Your task to perform on an android device: Check the weather Image 0: 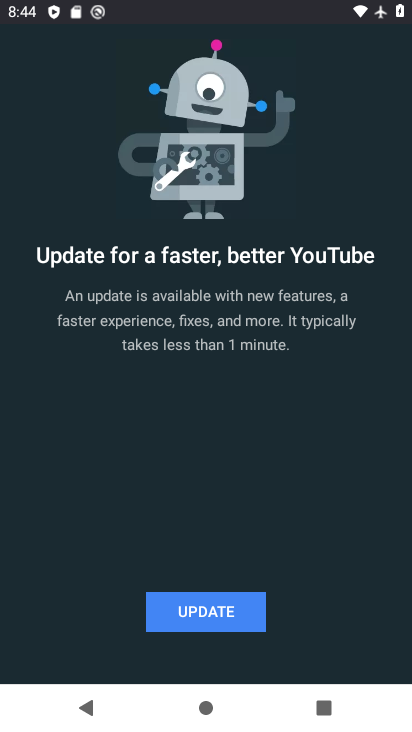
Step 0: press home button
Your task to perform on an android device: Check the weather Image 1: 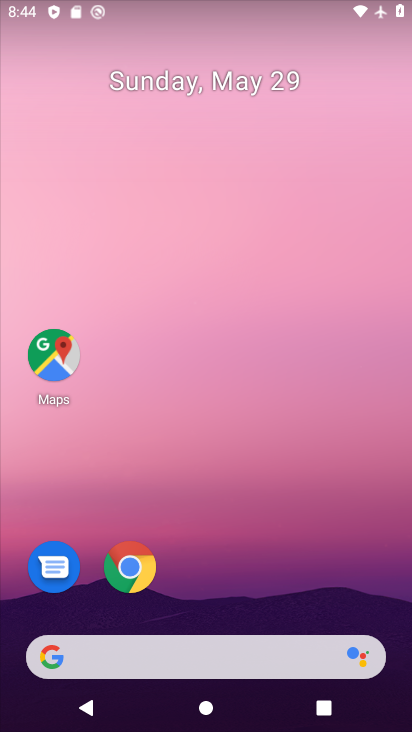
Step 1: click (239, 666)
Your task to perform on an android device: Check the weather Image 2: 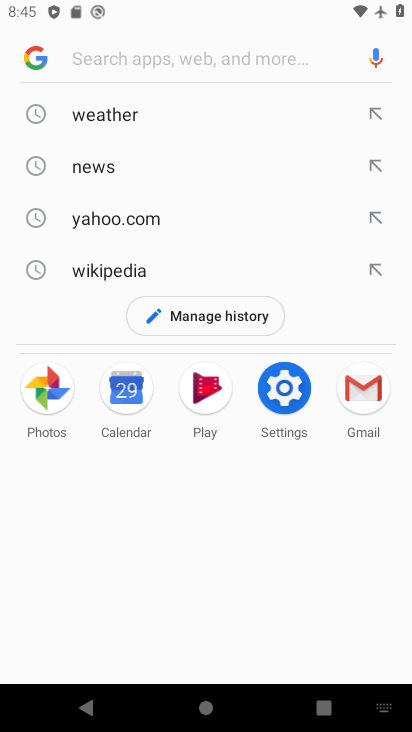
Step 2: click (119, 116)
Your task to perform on an android device: Check the weather Image 3: 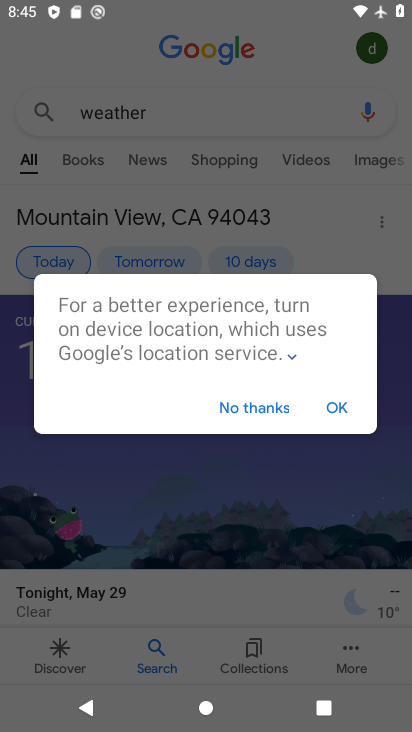
Step 3: click (339, 408)
Your task to perform on an android device: Check the weather Image 4: 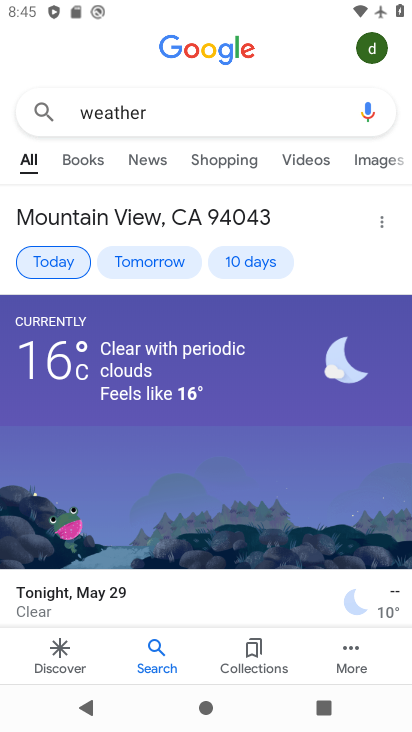
Step 4: task complete